Your task to perform on an android device: Open the calendar app, open the side menu, and click the "Day" option Image 0: 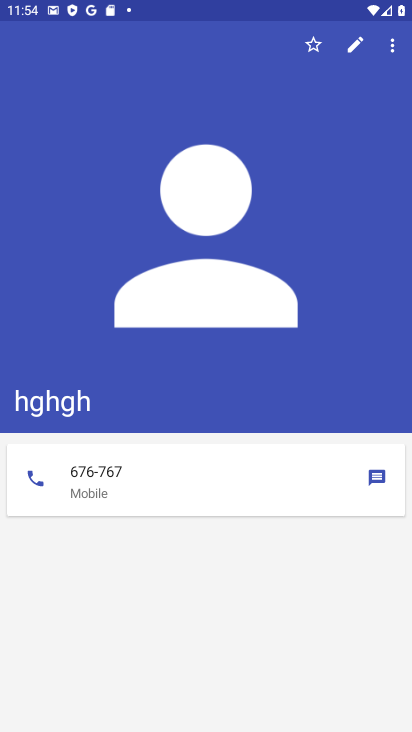
Step 0: press home button
Your task to perform on an android device: Open the calendar app, open the side menu, and click the "Day" option Image 1: 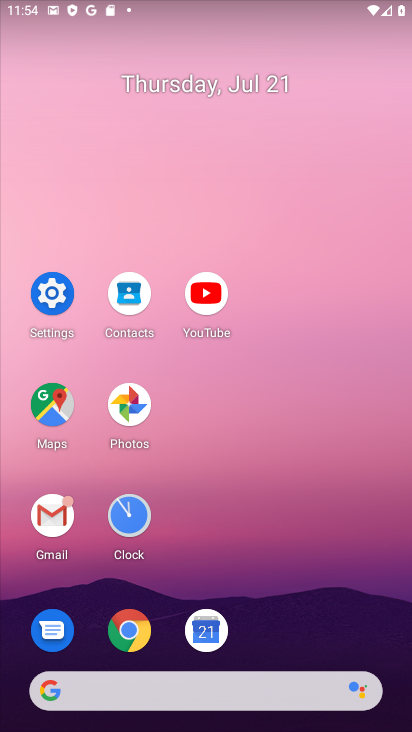
Step 1: click (206, 630)
Your task to perform on an android device: Open the calendar app, open the side menu, and click the "Day" option Image 2: 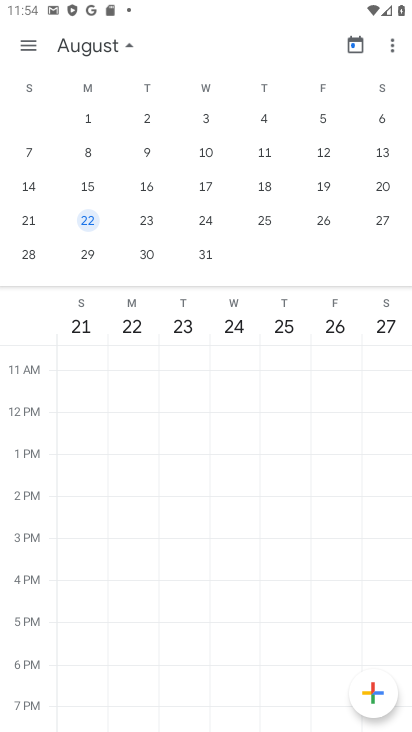
Step 2: click (24, 43)
Your task to perform on an android device: Open the calendar app, open the side menu, and click the "Day" option Image 3: 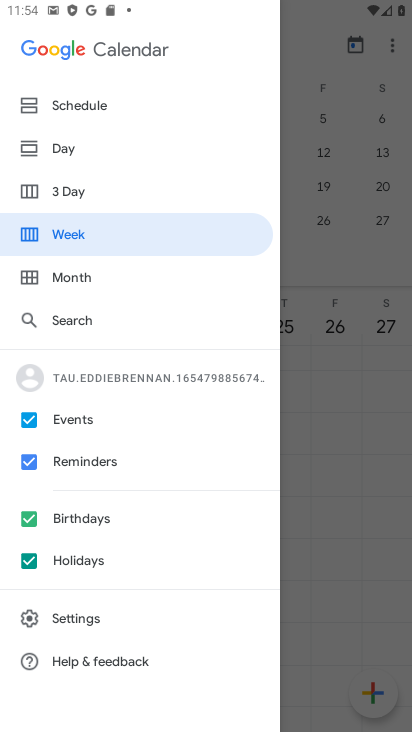
Step 3: click (59, 147)
Your task to perform on an android device: Open the calendar app, open the side menu, and click the "Day" option Image 4: 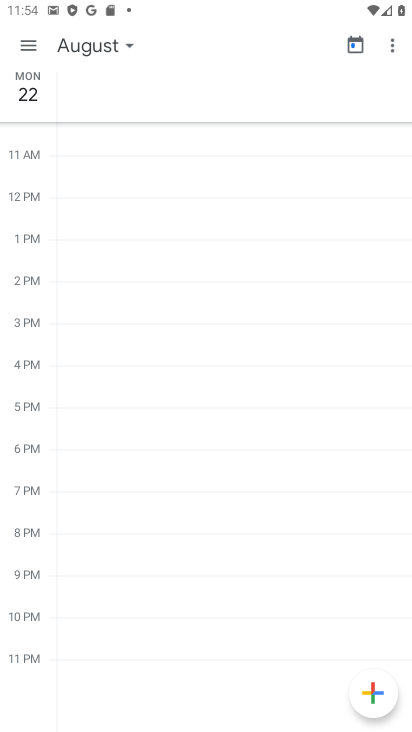
Step 4: task complete